Your task to perform on an android device: toggle javascript in the chrome app Image 0: 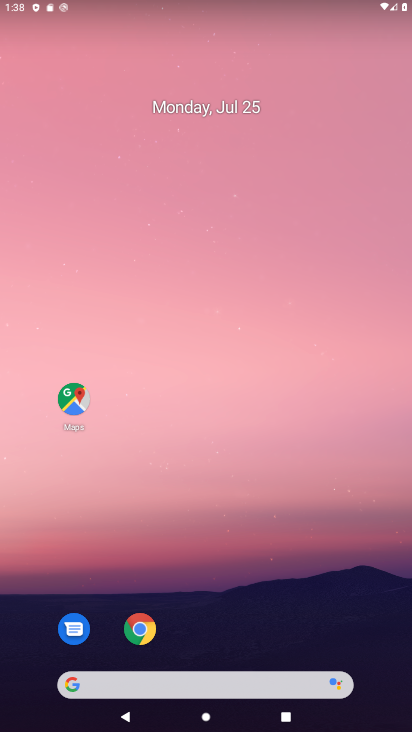
Step 0: drag from (182, 656) to (153, 11)
Your task to perform on an android device: toggle javascript in the chrome app Image 1: 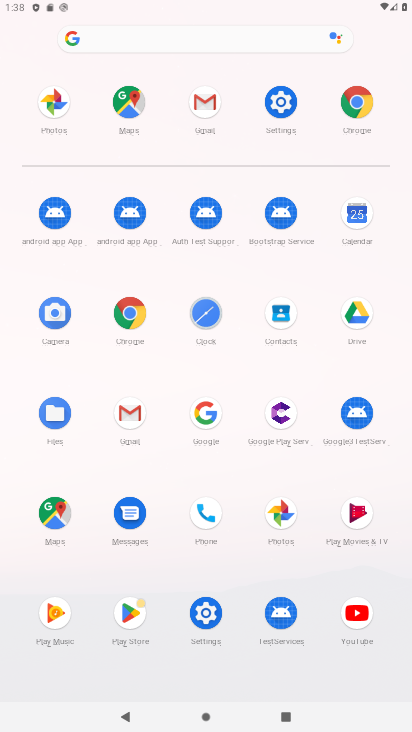
Step 1: drag from (245, 620) to (235, 198)
Your task to perform on an android device: toggle javascript in the chrome app Image 2: 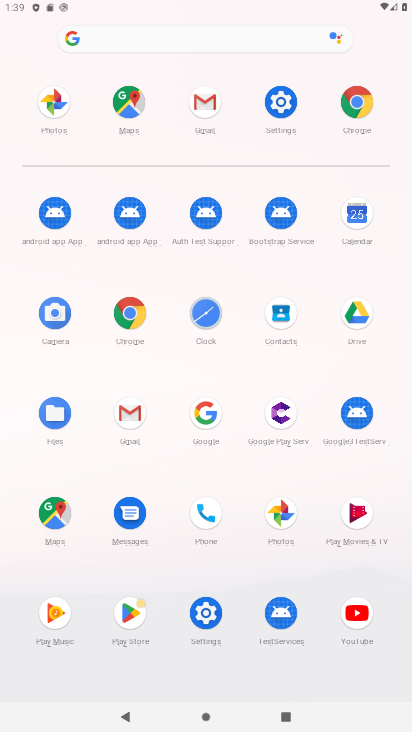
Step 2: click (114, 317)
Your task to perform on an android device: toggle javascript in the chrome app Image 3: 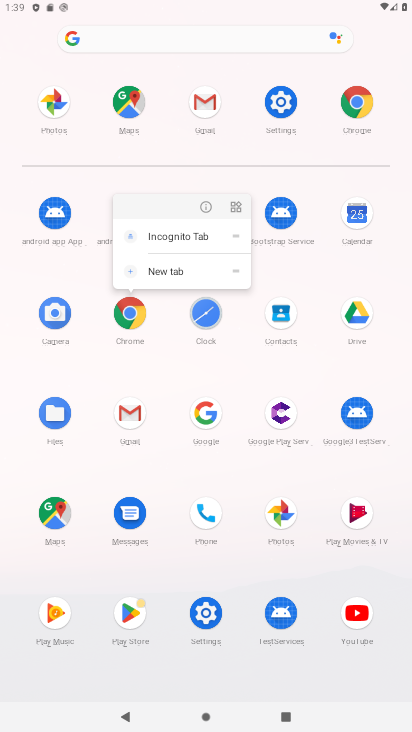
Step 3: click (197, 211)
Your task to perform on an android device: toggle javascript in the chrome app Image 4: 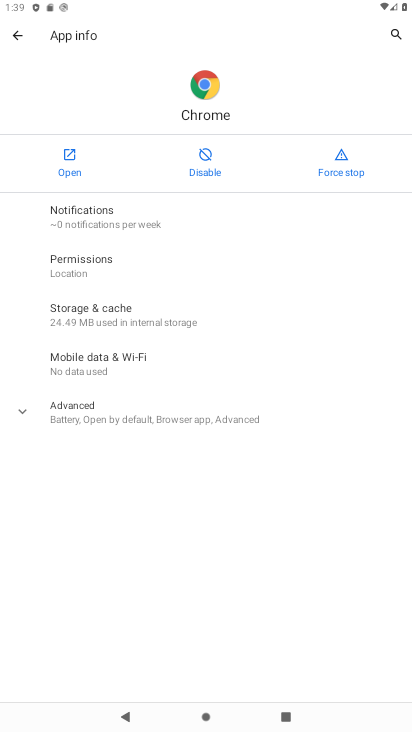
Step 4: click (66, 166)
Your task to perform on an android device: toggle javascript in the chrome app Image 5: 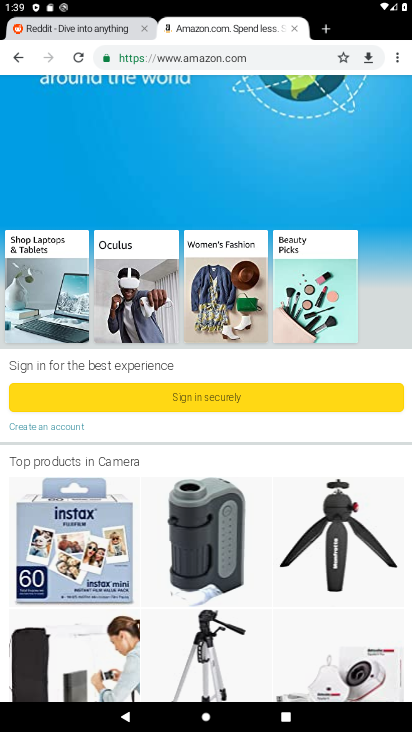
Step 5: drag from (403, 53) to (299, 421)
Your task to perform on an android device: toggle javascript in the chrome app Image 6: 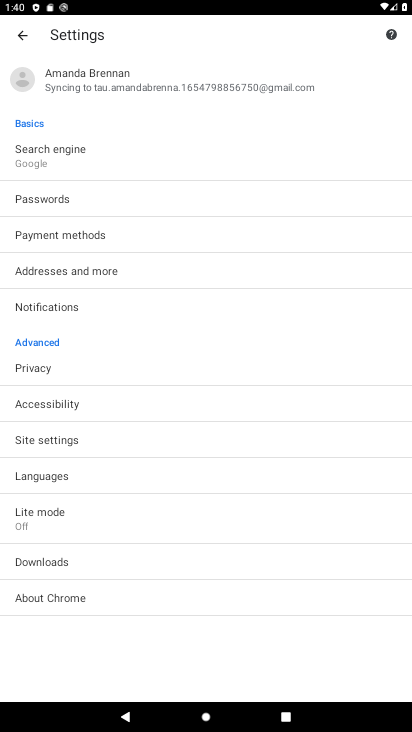
Step 6: drag from (251, 482) to (320, 213)
Your task to perform on an android device: toggle javascript in the chrome app Image 7: 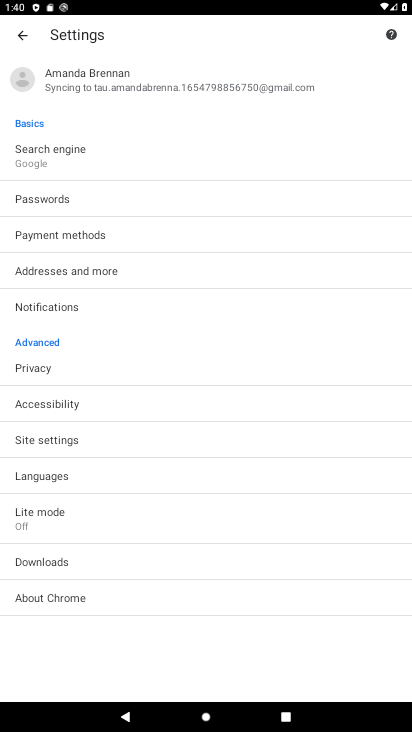
Step 7: drag from (259, 252) to (205, 727)
Your task to perform on an android device: toggle javascript in the chrome app Image 8: 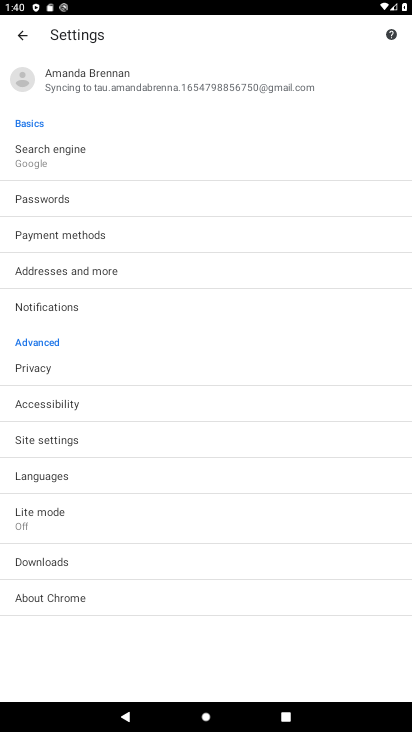
Step 8: click (48, 435)
Your task to perform on an android device: toggle javascript in the chrome app Image 9: 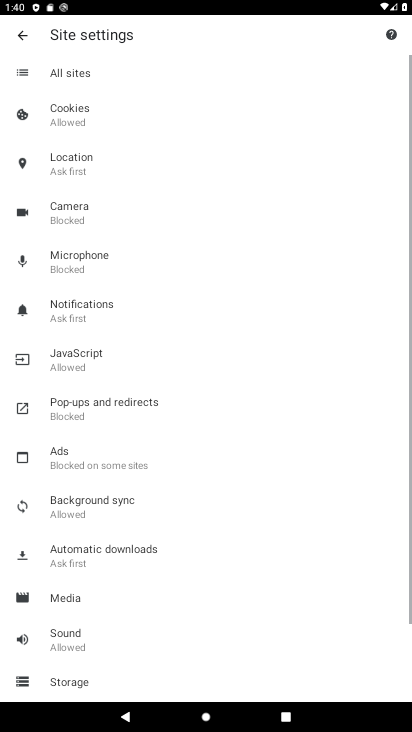
Step 9: drag from (181, 435) to (195, 213)
Your task to perform on an android device: toggle javascript in the chrome app Image 10: 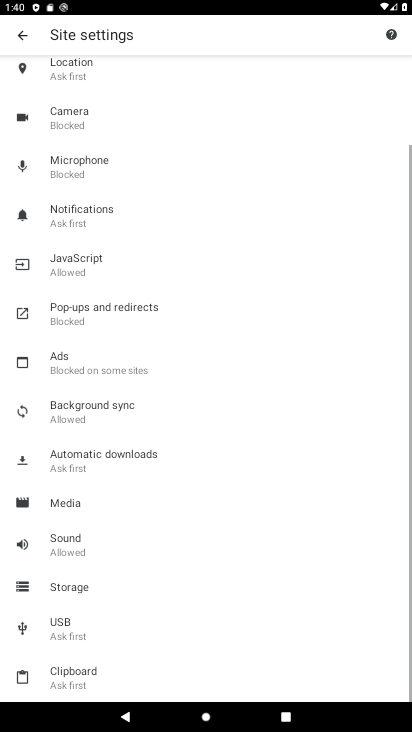
Step 10: drag from (210, 184) to (216, 701)
Your task to perform on an android device: toggle javascript in the chrome app Image 11: 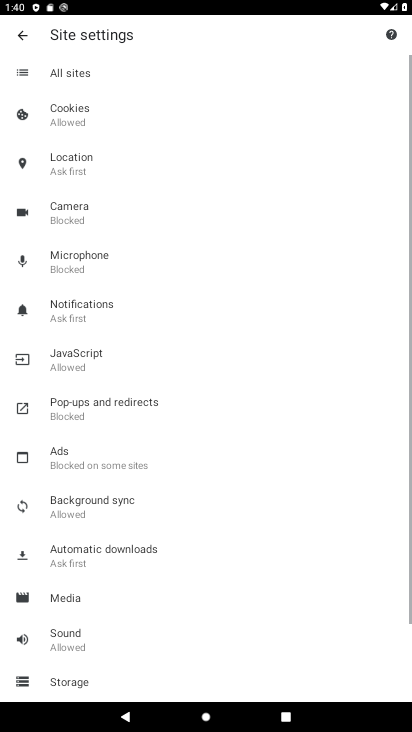
Step 11: drag from (204, 564) to (210, 273)
Your task to perform on an android device: toggle javascript in the chrome app Image 12: 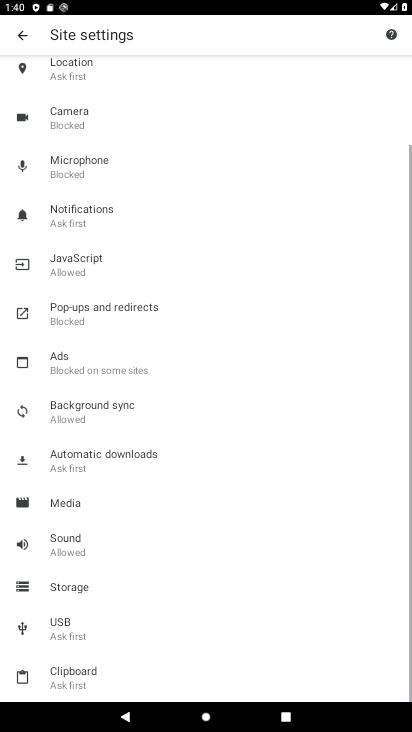
Step 12: drag from (223, 240) to (243, 635)
Your task to perform on an android device: toggle javascript in the chrome app Image 13: 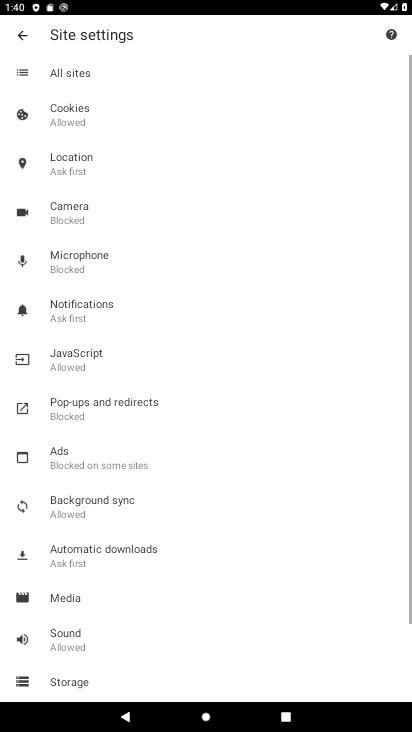
Step 13: drag from (170, 526) to (241, 177)
Your task to perform on an android device: toggle javascript in the chrome app Image 14: 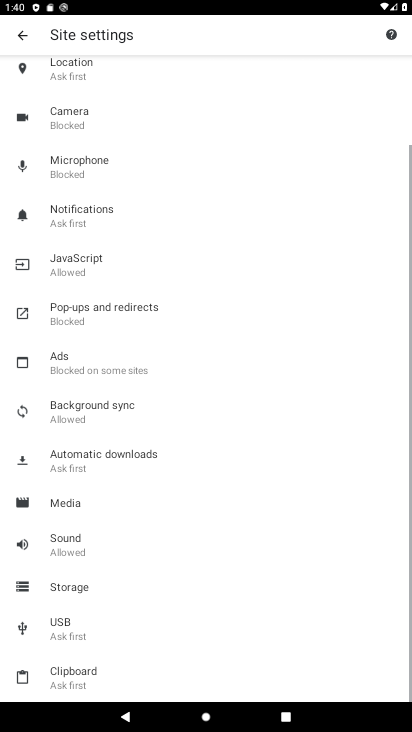
Step 14: drag from (238, 117) to (339, 723)
Your task to perform on an android device: toggle javascript in the chrome app Image 15: 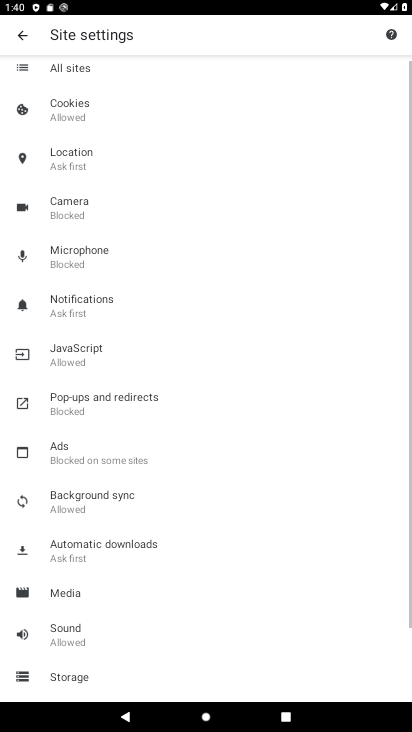
Step 15: drag from (189, 620) to (240, 211)
Your task to perform on an android device: toggle javascript in the chrome app Image 16: 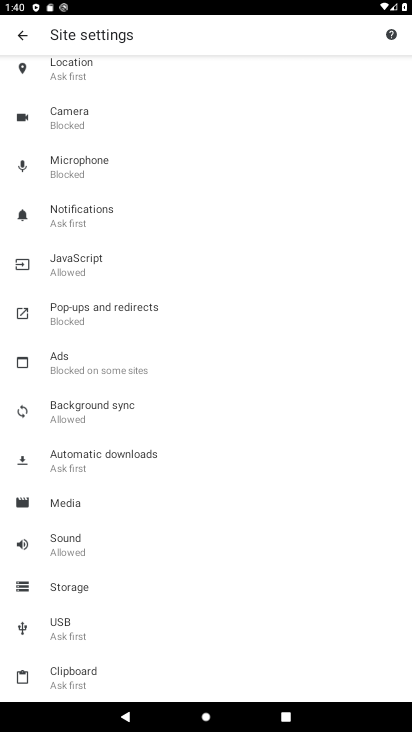
Step 16: click (110, 271)
Your task to perform on an android device: toggle javascript in the chrome app Image 17: 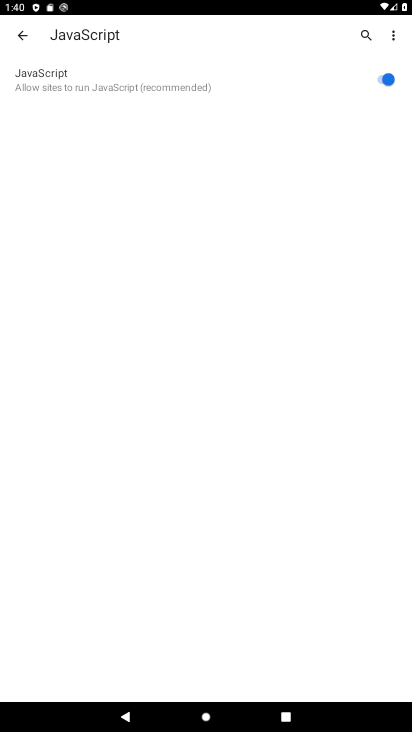
Step 17: drag from (258, 351) to (254, 113)
Your task to perform on an android device: toggle javascript in the chrome app Image 18: 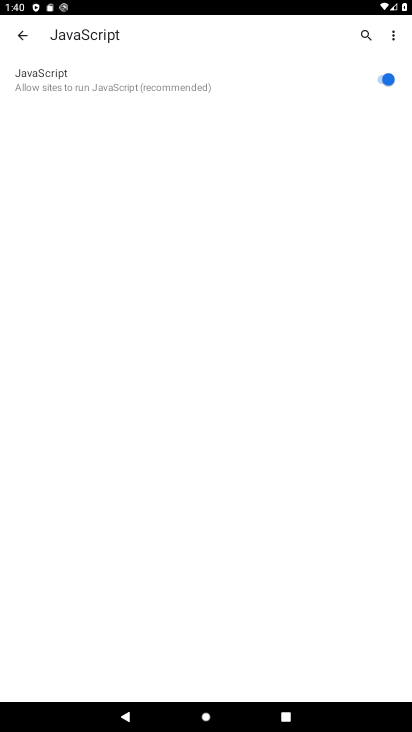
Step 18: click (232, 241)
Your task to perform on an android device: toggle javascript in the chrome app Image 19: 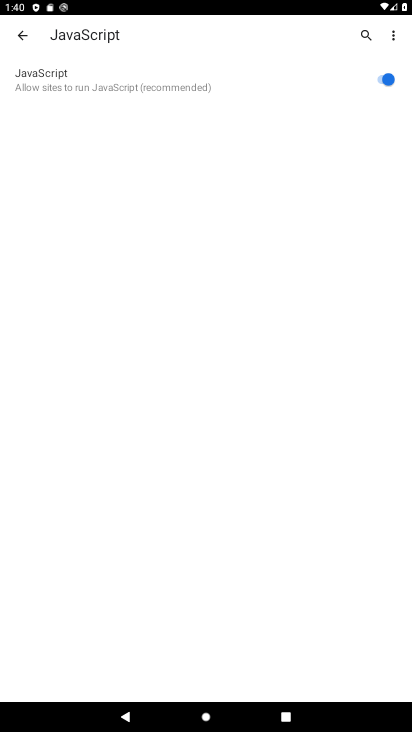
Step 19: task complete